Your task to perform on an android device: turn pop-ups on in chrome Image 0: 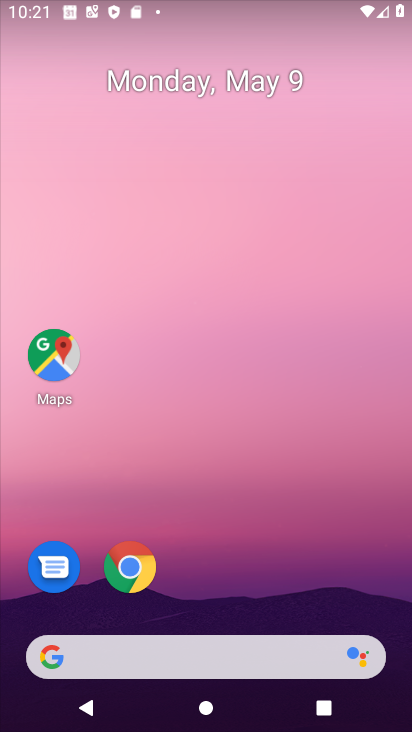
Step 0: click (130, 585)
Your task to perform on an android device: turn pop-ups on in chrome Image 1: 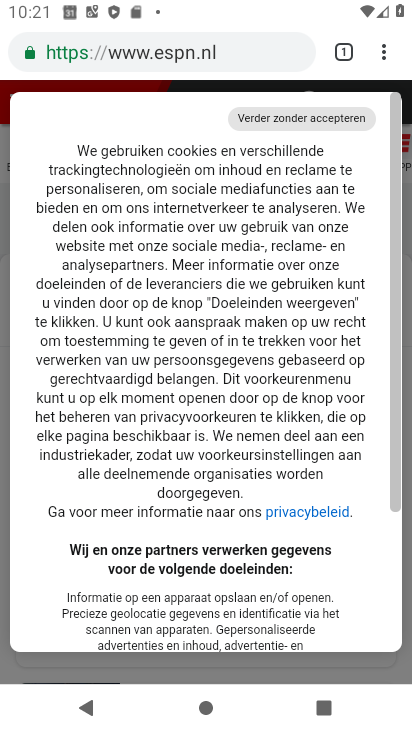
Step 1: click (390, 51)
Your task to perform on an android device: turn pop-ups on in chrome Image 2: 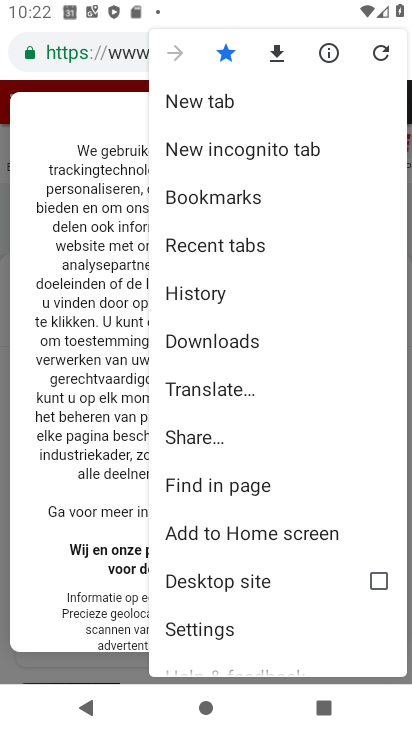
Step 2: click (220, 635)
Your task to perform on an android device: turn pop-ups on in chrome Image 3: 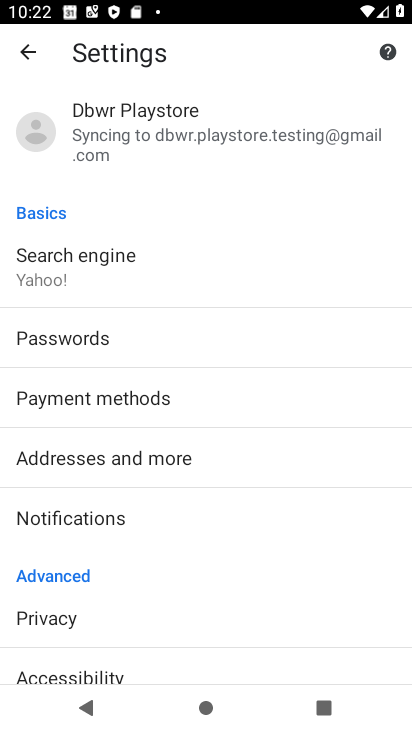
Step 3: drag from (160, 620) to (121, 250)
Your task to perform on an android device: turn pop-ups on in chrome Image 4: 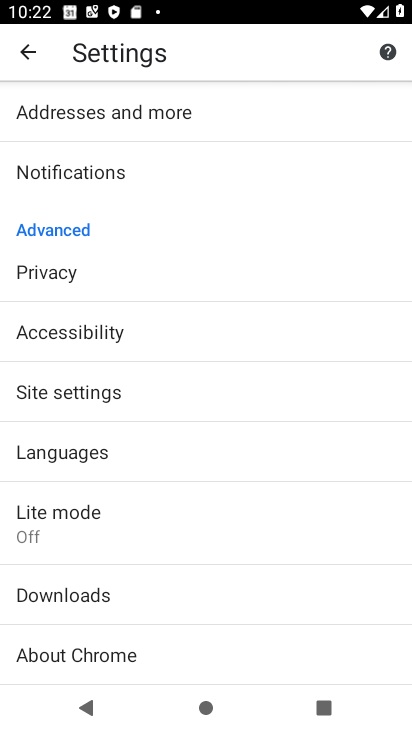
Step 4: click (77, 391)
Your task to perform on an android device: turn pop-ups on in chrome Image 5: 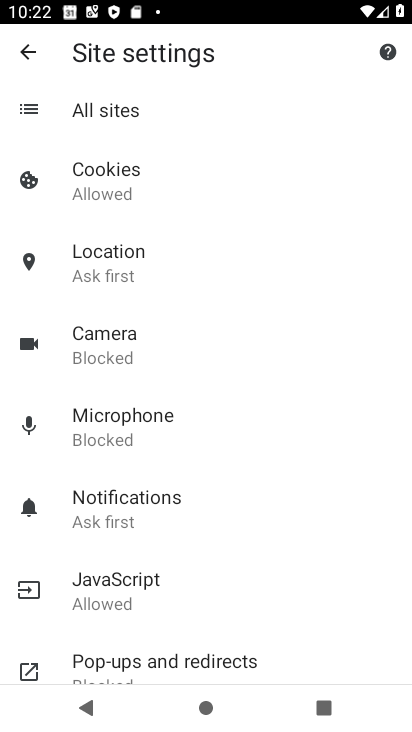
Step 5: click (151, 662)
Your task to perform on an android device: turn pop-ups on in chrome Image 6: 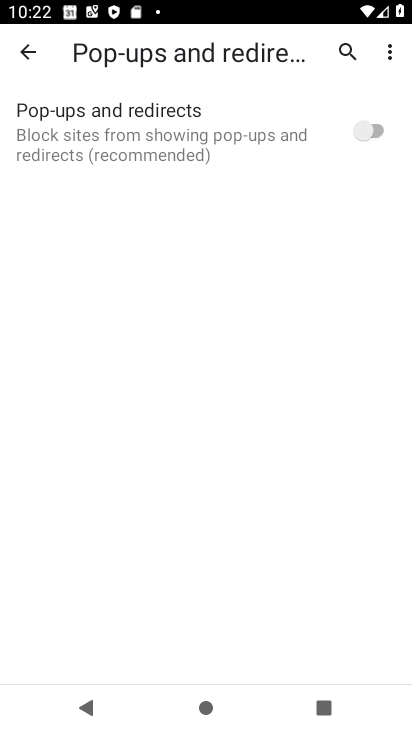
Step 6: click (360, 131)
Your task to perform on an android device: turn pop-ups on in chrome Image 7: 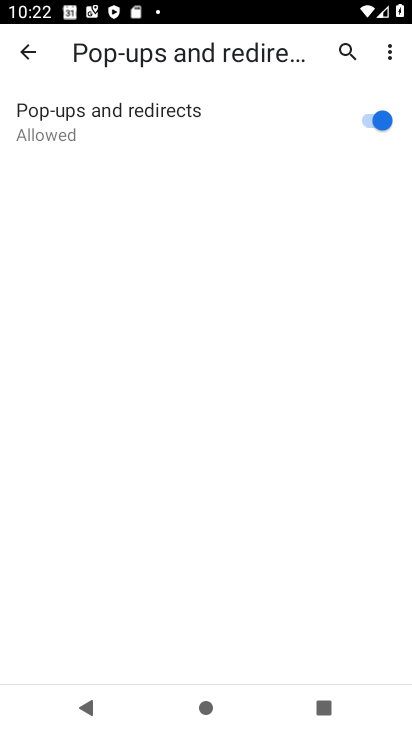
Step 7: task complete